Your task to perform on an android device: Open the calendar and show me this week's events? Image 0: 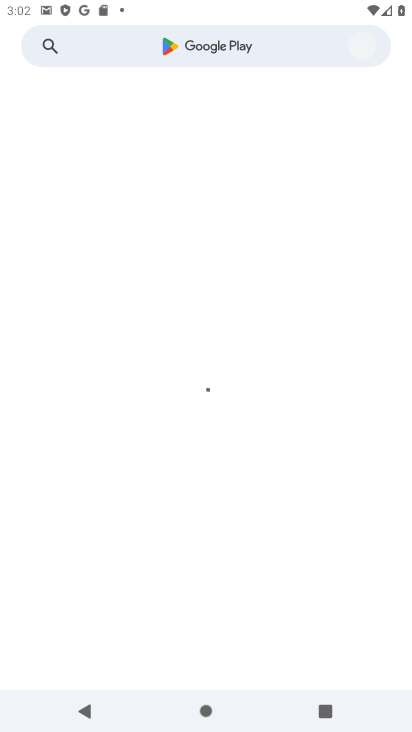
Step 0: press home button
Your task to perform on an android device: Open the calendar and show me this week's events? Image 1: 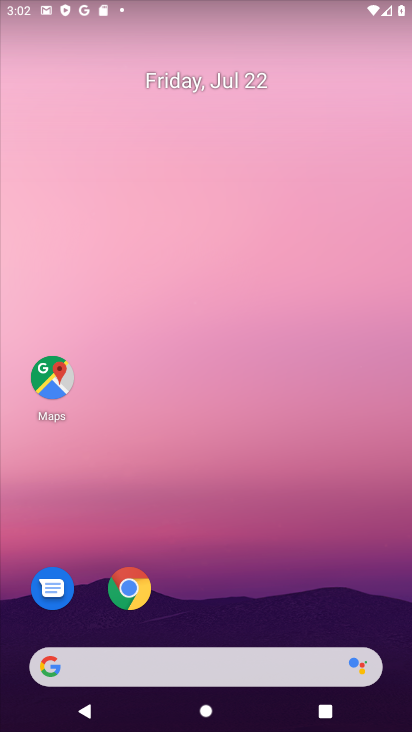
Step 1: drag from (335, 604) to (16, 463)
Your task to perform on an android device: Open the calendar and show me this week's events? Image 2: 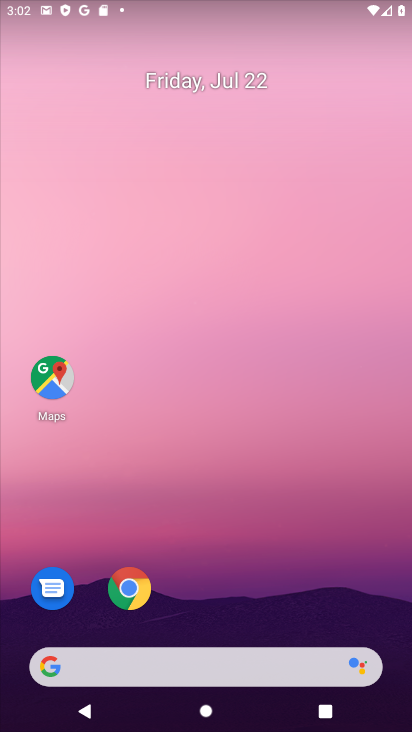
Step 2: drag from (228, 186) to (221, 108)
Your task to perform on an android device: Open the calendar and show me this week's events? Image 3: 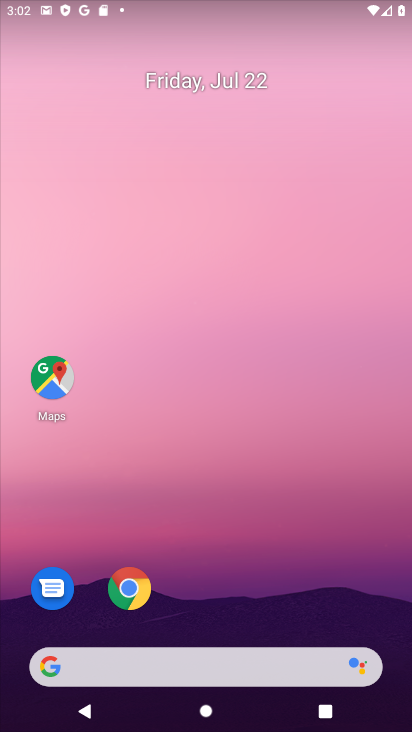
Step 3: drag from (279, 582) to (236, 69)
Your task to perform on an android device: Open the calendar and show me this week's events? Image 4: 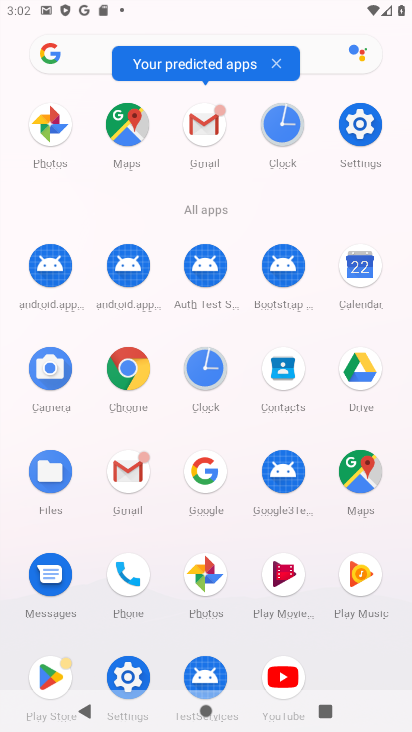
Step 4: click (349, 264)
Your task to perform on an android device: Open the calendar and show me this week's events? Image 5: 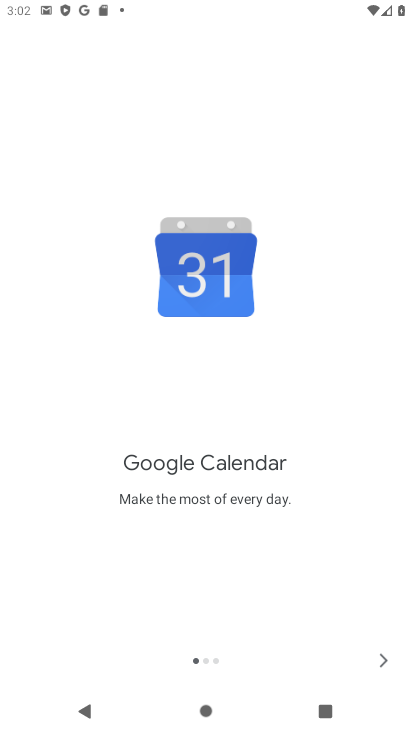
Step 5: click (383, 649)
Your task to perform on an android device: Open the calendar and show me this week's events? Image 6: 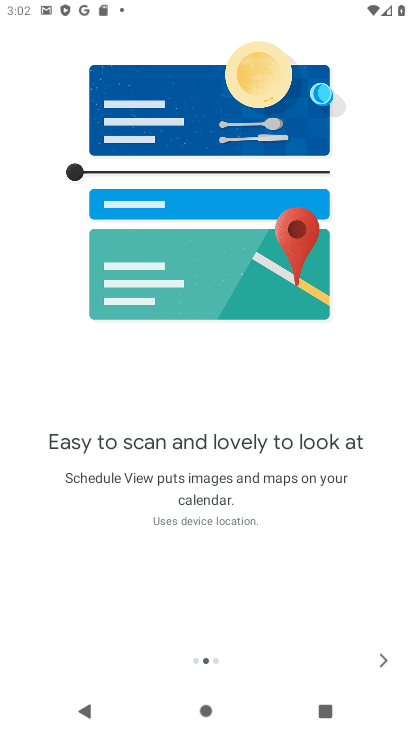
Step 6: click (381, 664)
Your task to perform on an android device: Open the calendar and show me this week's events? Image 7: 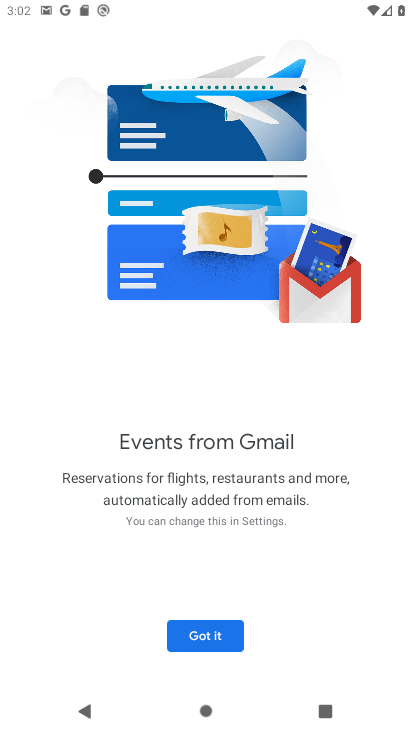
Step 7: click (173, 630)
Your task to perform on an android device: Open the calendar and show me this week's events? Image 8: 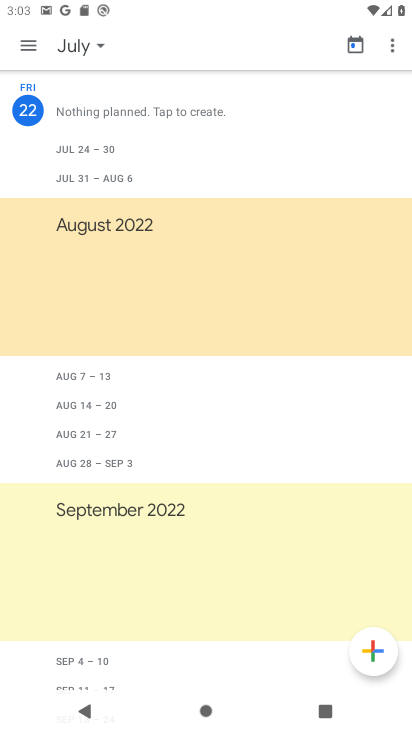
Step 8: click (97, 37)
Your task to perform on an android device: Open the calendar and show me this week's events? Image 9: 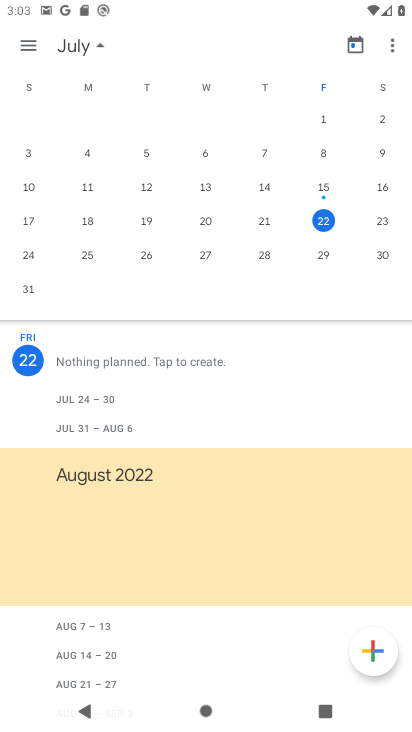
Step 9: click (316, 222)
Your task to perform on an android device: Open the calendar and show me this week's events? Image 10: 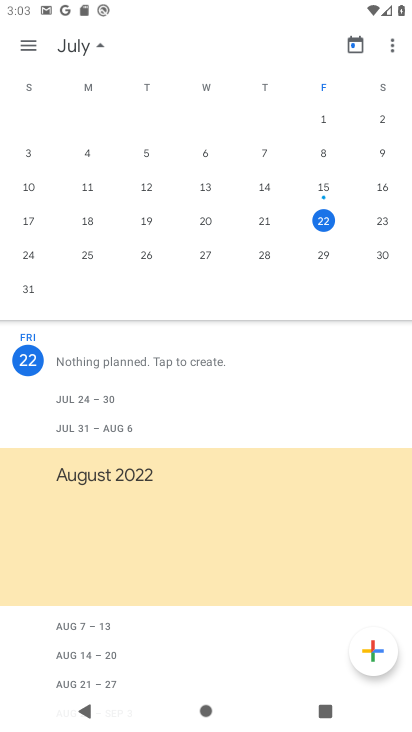
Step 10: task complete